Your task to perform on an android device: turn on notifications settings in the gmail app Image 0: 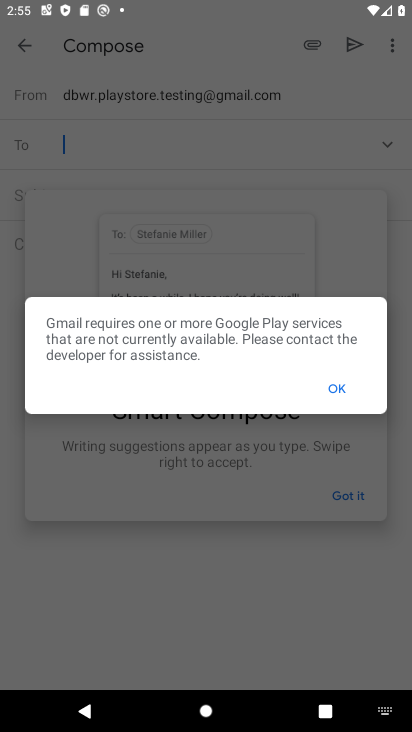
Step 0: press home button
Your task to perform on an android device: turn on notifications settings in the gmail app Image 1: 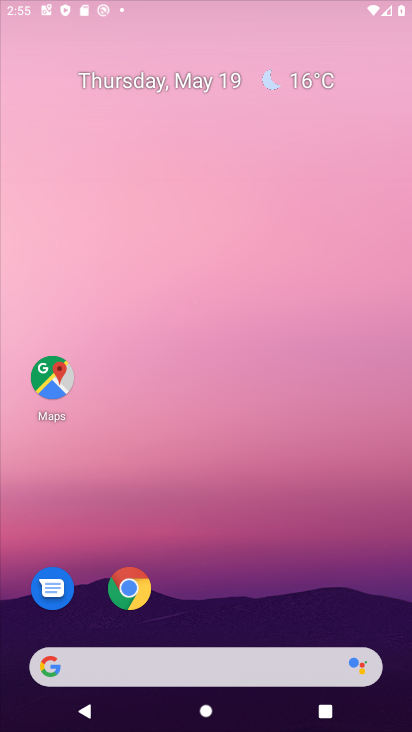
Step 1: drag from (316, 559) to (265, 156)
Your task to perform on an android device: turn on notifications settings in the gmail app Image 2: 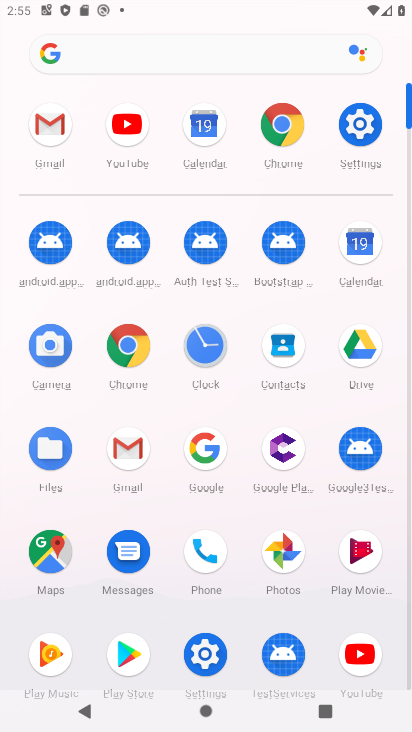
Step 2: click (44, 131)
Your task to perform on an android device: turn on notifications settings in the gmail app Image 3: 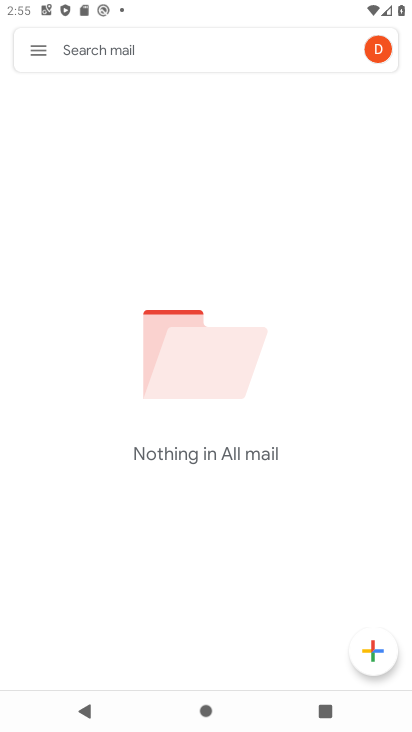
Step 3: click (38, 37)
Your task to perform on an android device: turn on notifications settings in the gmail app Image 4: 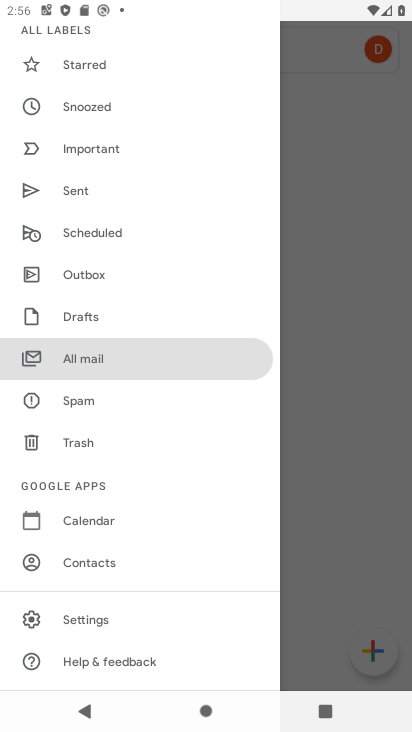
Step 4: click (63, 615)
Your task to perform on an android device: turn on notifications settings in the gmail app Image 5: 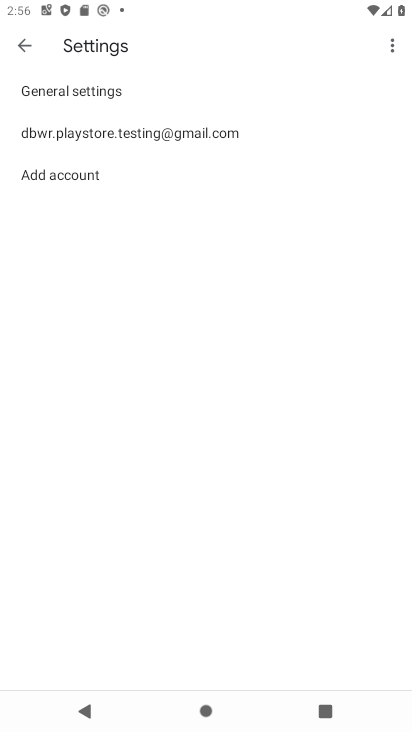
Step 5: click (173, 136)
Your task to perform on an android device: turn on notifications settings in the gmail app Image 6: 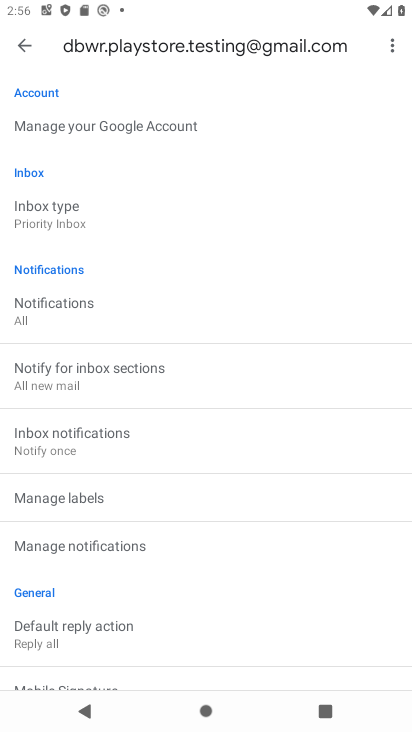
Step 6: click (70, 544)
Your task to perform on an android device: turn on notifications settings in the gmail app Image 7: 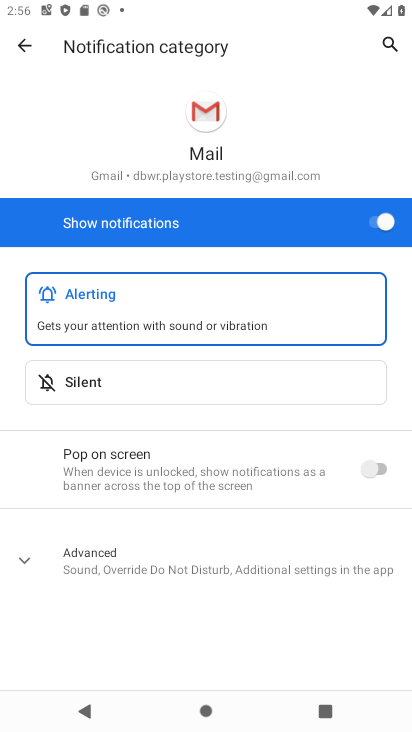
Step 7: task complete